Your task to perform on an android device: Is it going to rain today? Image 0: 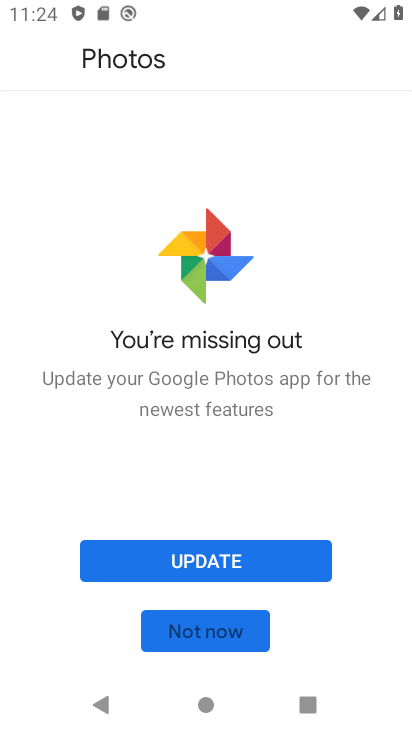
Step 0: press home button
Your task to perform on an android device: Is it going to rain today? Image 1: 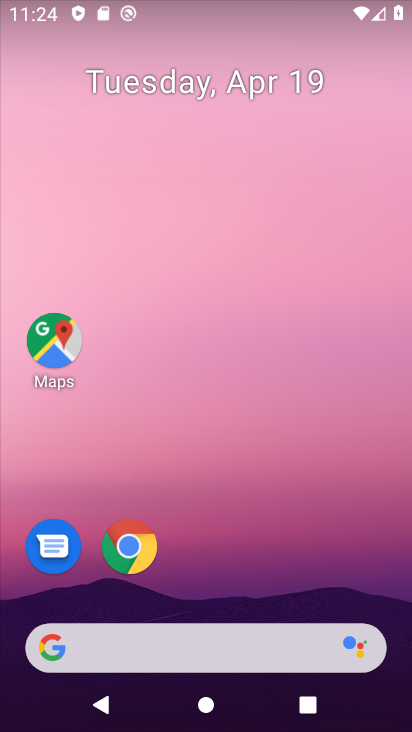
Step 1: click (187, 632)
Your task to perform on an android device: Is it going to rain today? Image 2: 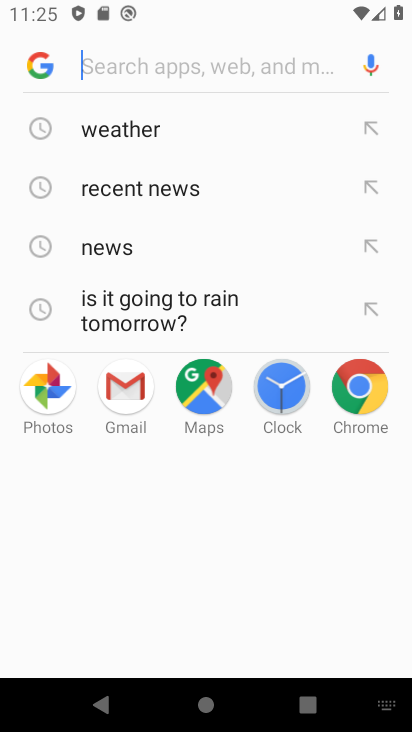
Step 2: click (120, 142)
Your task to perform on an android device: Is it going to rain today? Image 3: 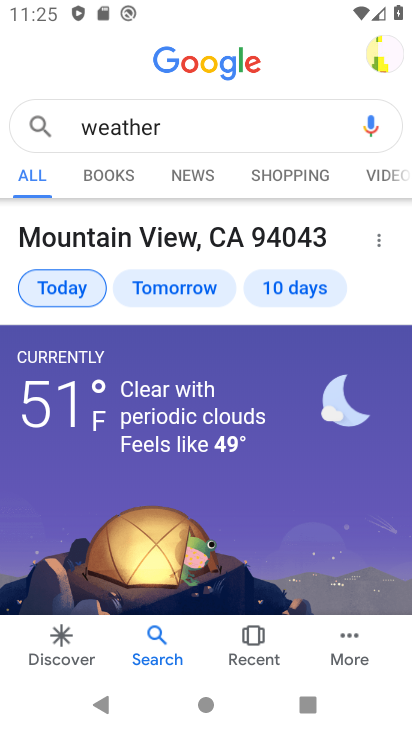
Step 3: task complete